Your task to perform on an android device: turn on priority inbox in the gmail app Image 0: 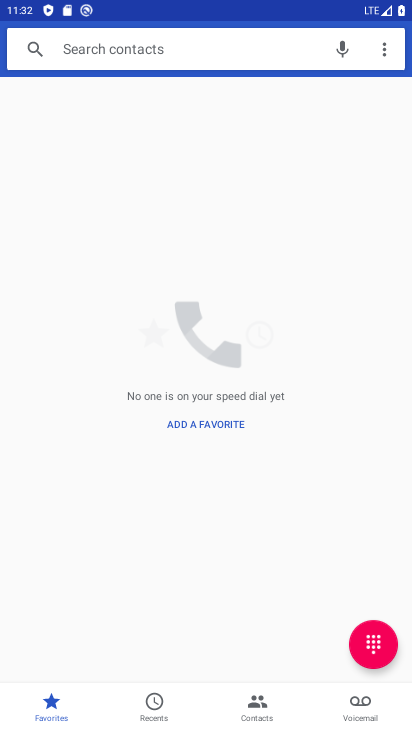
Step 0: press home button
Your task to perform on an android device: turn on priority inbox in the gmail app Image 1: 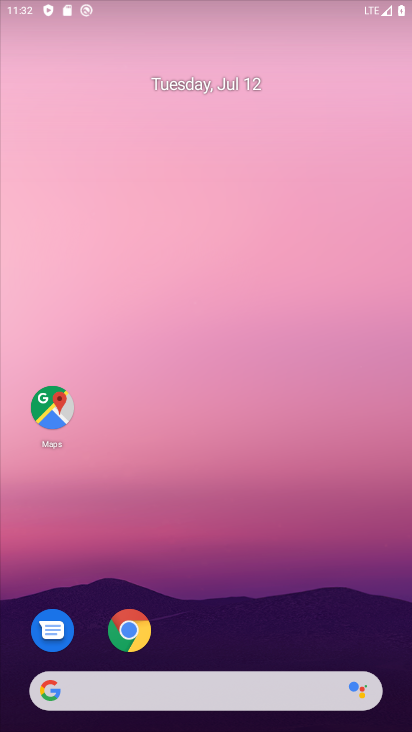
Step 1: drag from (380, 686) to (191, 58)
Your task to perform on an android device: turn on priority inbox in the gmail app Image 2: 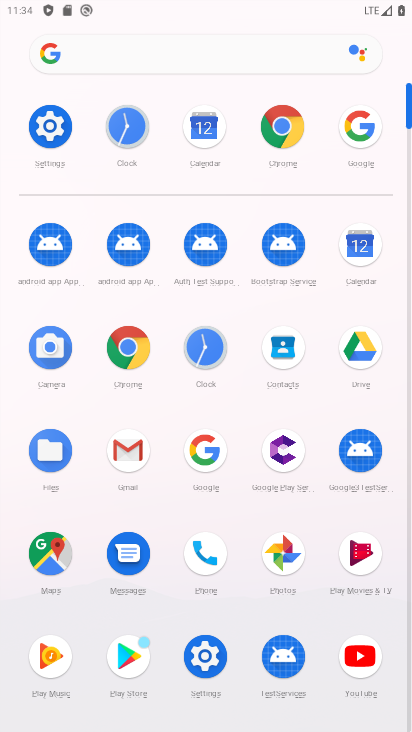
Step 2: click (132, 444)
Your task to perform on an android device: turn on priority inbox in the gmail app Image 3: 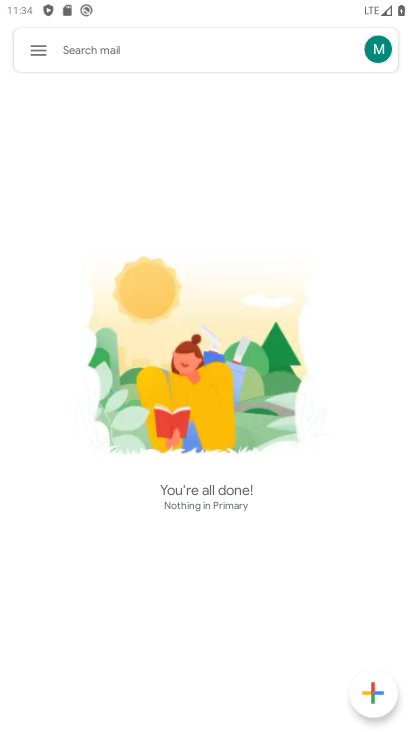
Step 3: click (33, 51)
Your task to perform on an android device: turn on priority inbox in the gmail app Image 4: 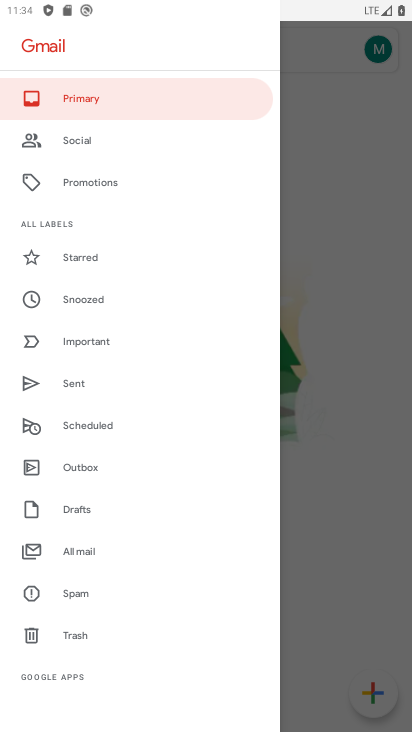
Step 4: drag from (84, 656) to (116, 140)
Your task to perform on an android device: turn on priority inbox in the gmail app Image 5: 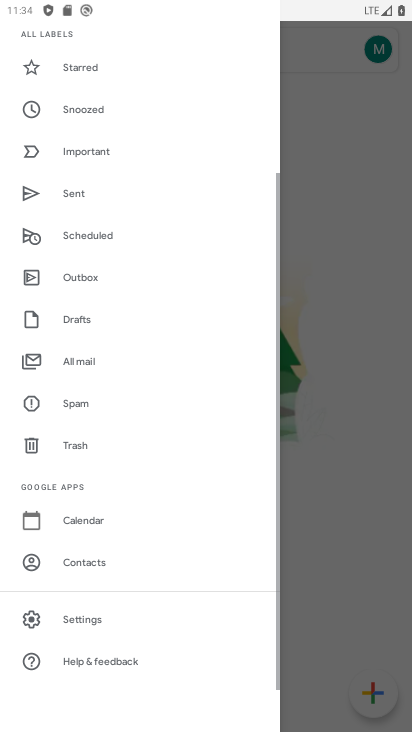
Step 5: click (77, 608)
Your task to perform on an android device: turn on priority inbox in the gmail app Image 6: 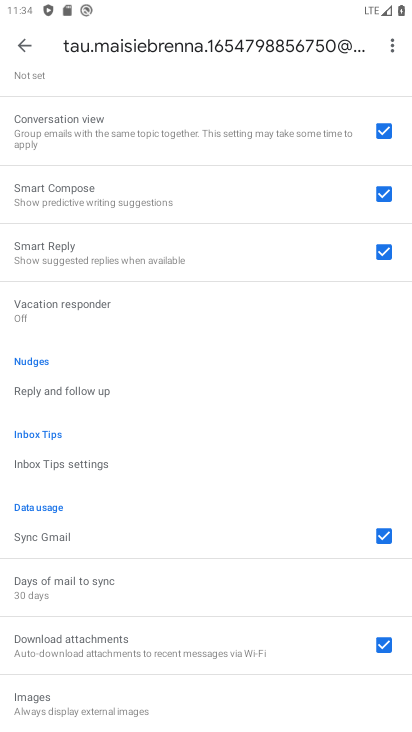
Step 6: drag from (124, 157) to (145, 729)
Your task to perform on an android device: turn on priority inbox in the gmail app Image 7: 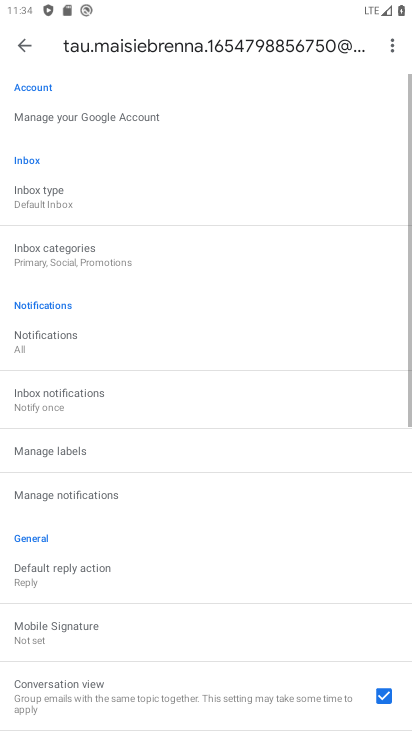
Step 7: drag from (110, 126) to (170, 657)
Your task to perform on an android device: turn on priority inbox in the gmail app Image 8: 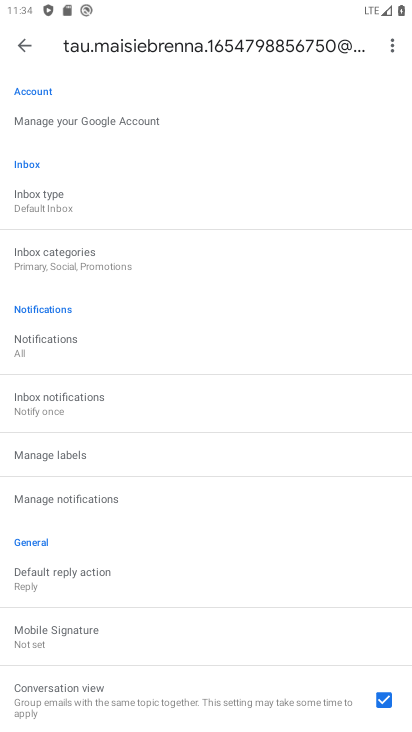
Step 8: click (72, 193)
Your task to perform on an android device: turn on priority inbox in the gmail app Image 9: 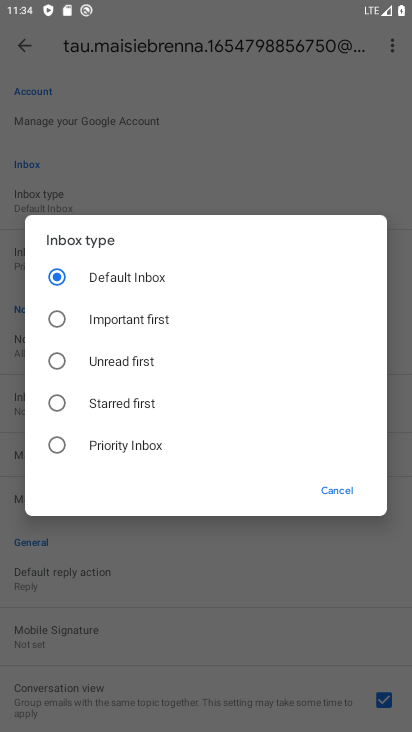
Step 9: click (49, 445)
Your task to perform on an android device: turn on priority inbox in the gmail app Image 10: 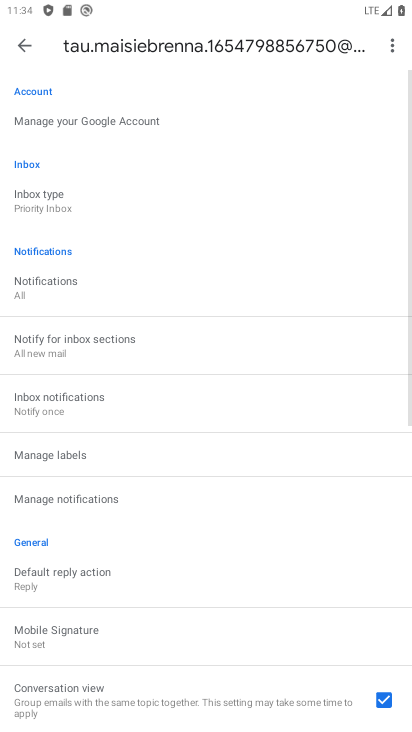
Step 10: task complete